Your task to perform on an android device: Go to Yahoo.com Image 0: 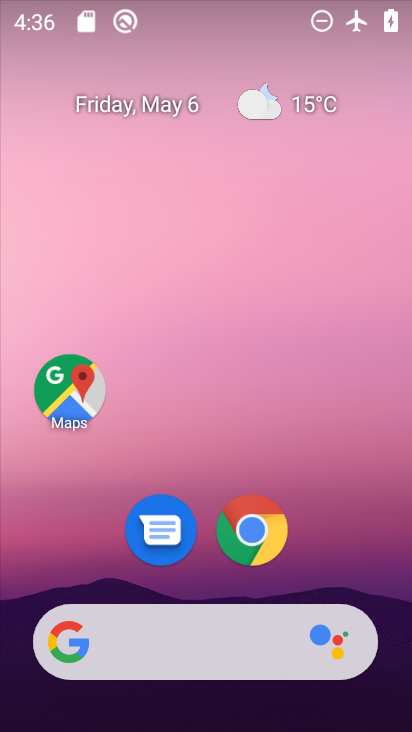
Step 0: click (282, 519)
Your task to perform on an android device: Go to Yahoo.com Image 1: 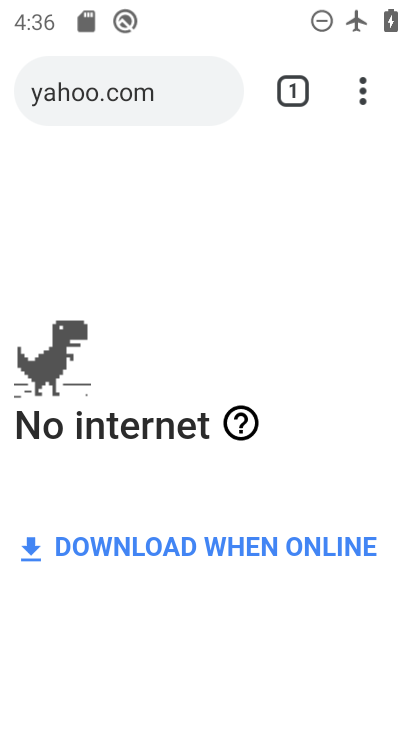
Step 1: task complete